Your task to perform on an android device: open app "Mercado Libre" (install if not already installed) and go to login screen Image 0: 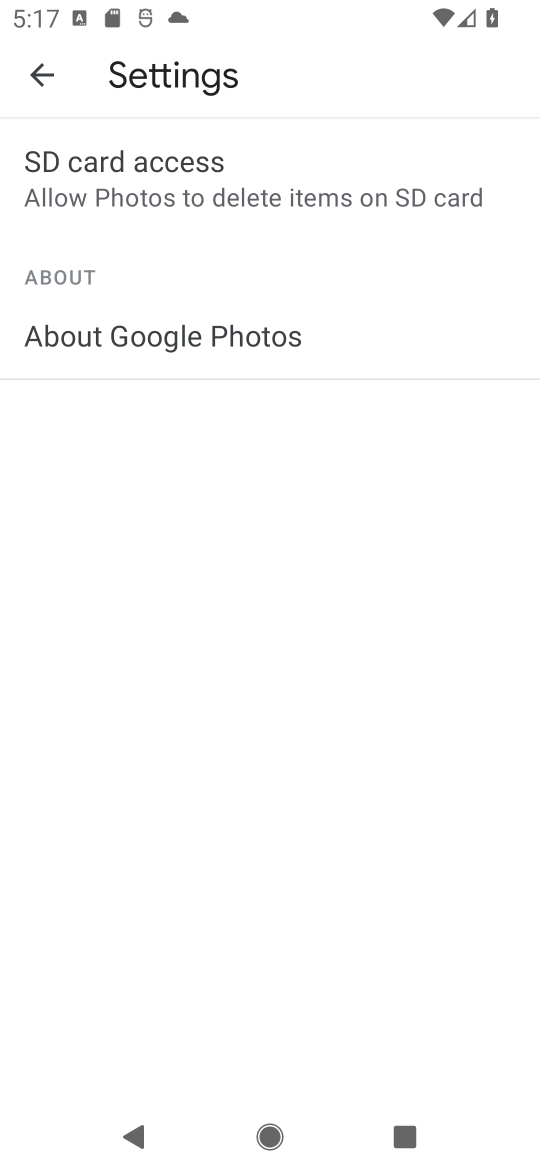
Step 0: press home button
Your task to perform on an android device: open app "Mercado Libre" (install if not already installed) and go to login screen Image 1: 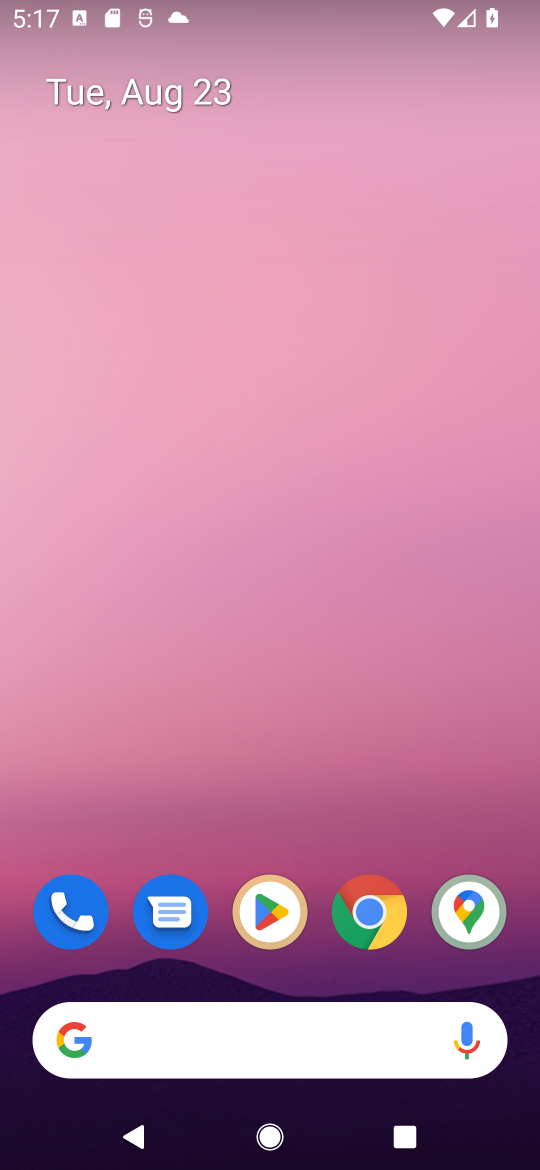
Step 1: drag from (248, 1055) to (311, 88)
Your task to perform on an android device: open app "Mercado Libre" (install if not already installed) and go to login screen Image 2: 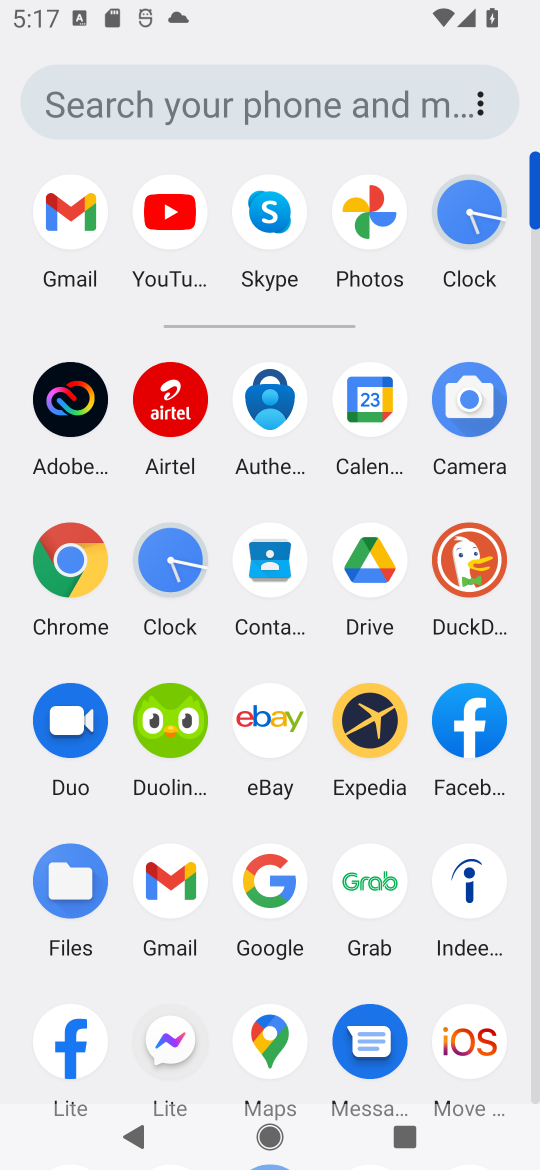
Step 2: drag from (199, 984) to (300, 286)
Your task to perform on an android device: open app "Mercado Libre" (install if not already installed) and go to login screen Image 3: 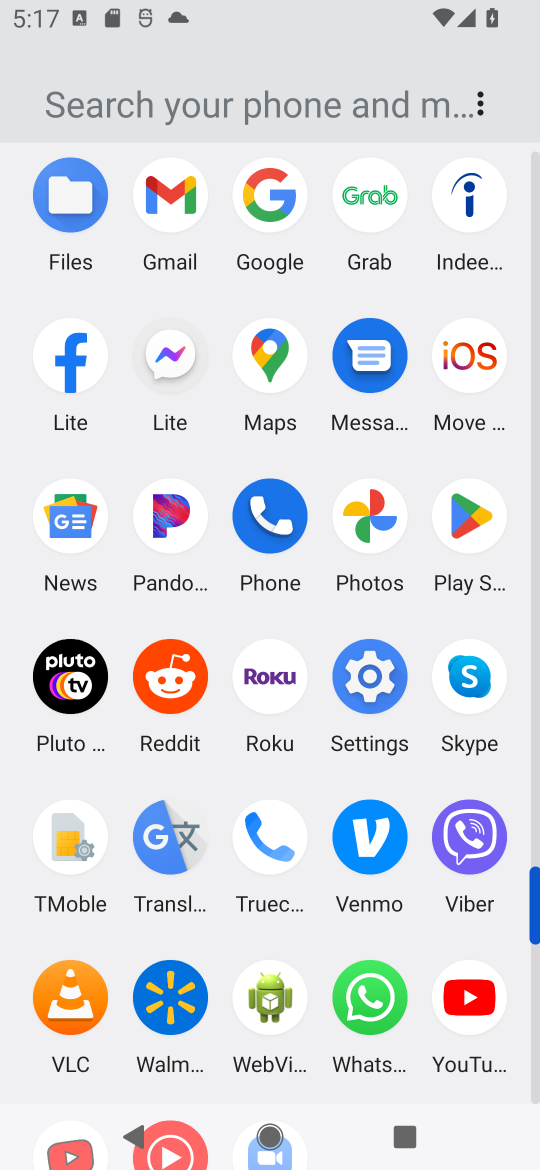
Step 3: click (464, 516)
Your task to perform on an android device: open app "Mercado Libre" (install if not already installed) and go to login screen Image 4: 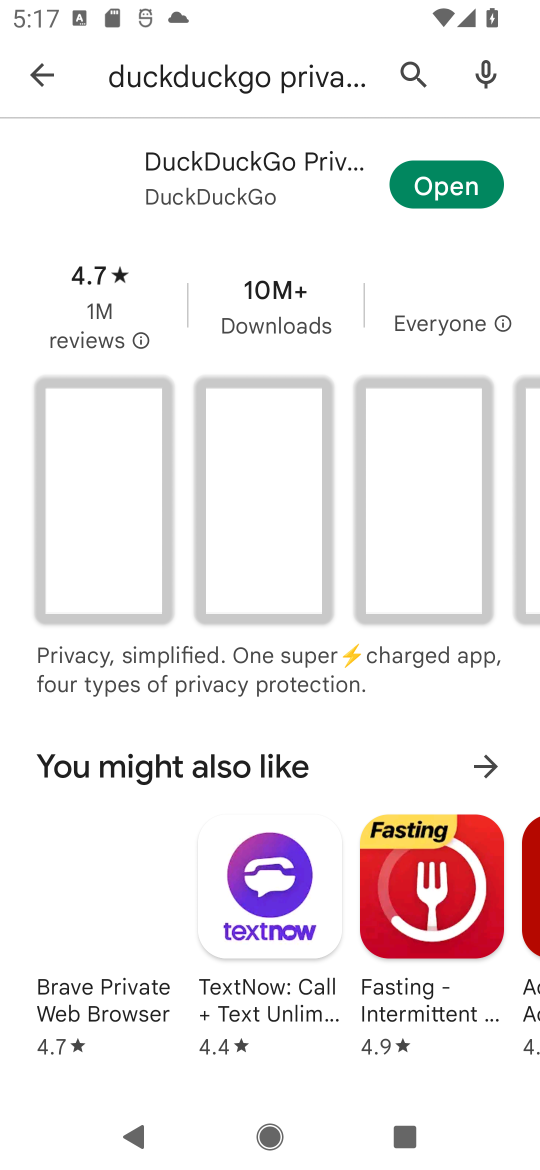
Step 4: press back button
Your task to perform on an android device: open app "Mercado Libre" (install if not already installed) and go to login screen Image 5: 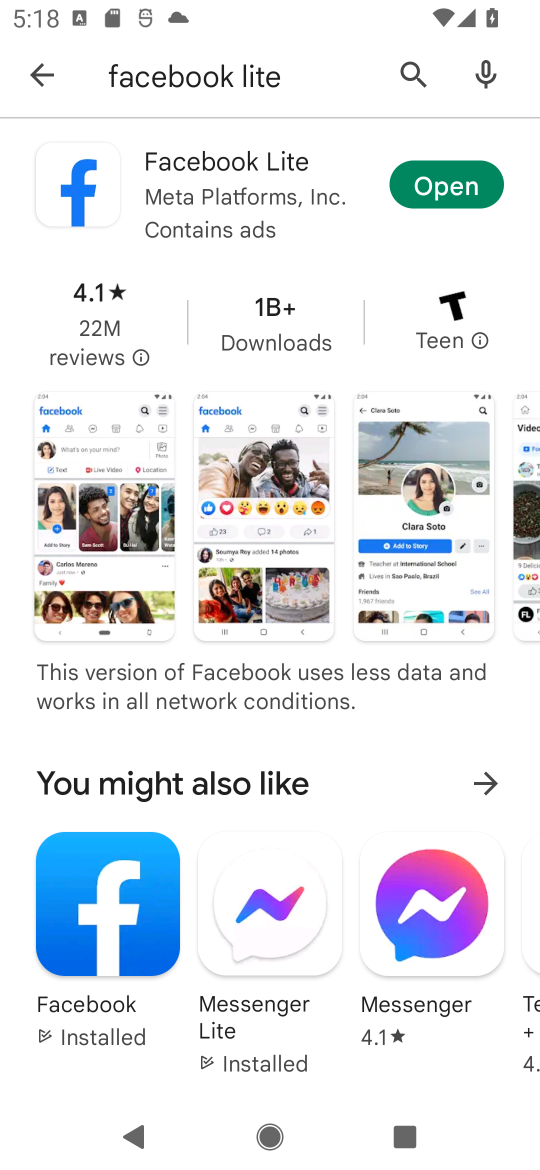
Step 5: press back button
Your task to perform on an android device: open app "Mercado Libre" (install if not already installed) and go to login screen Image 6: 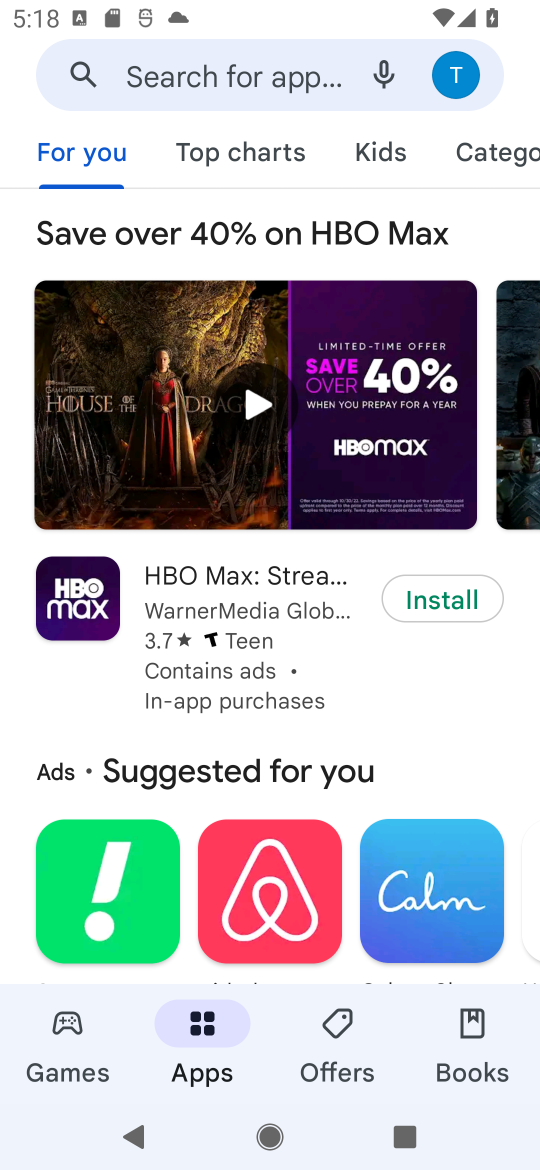
Step 6: click (277, 79)
Your task to perform on an android device: open app "Mercado Libre" (install if not already installed) and go to login screen Image 7: 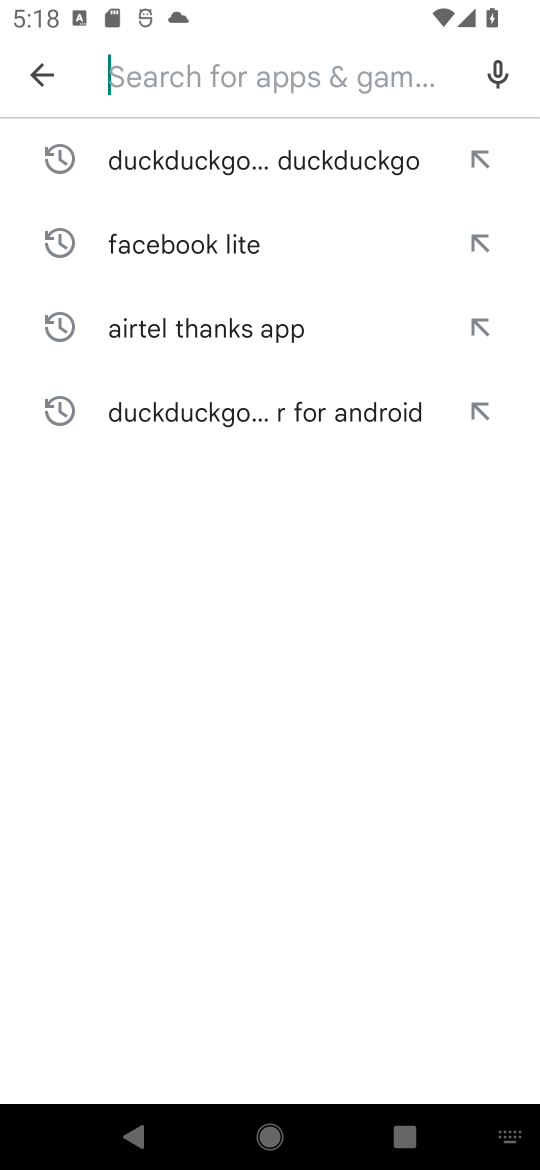
Step 7: type "Mercado Libre"
Your task to perform on an android device: open app "Mercado Libre" (install if not already installed) and go to login screen Image 8: 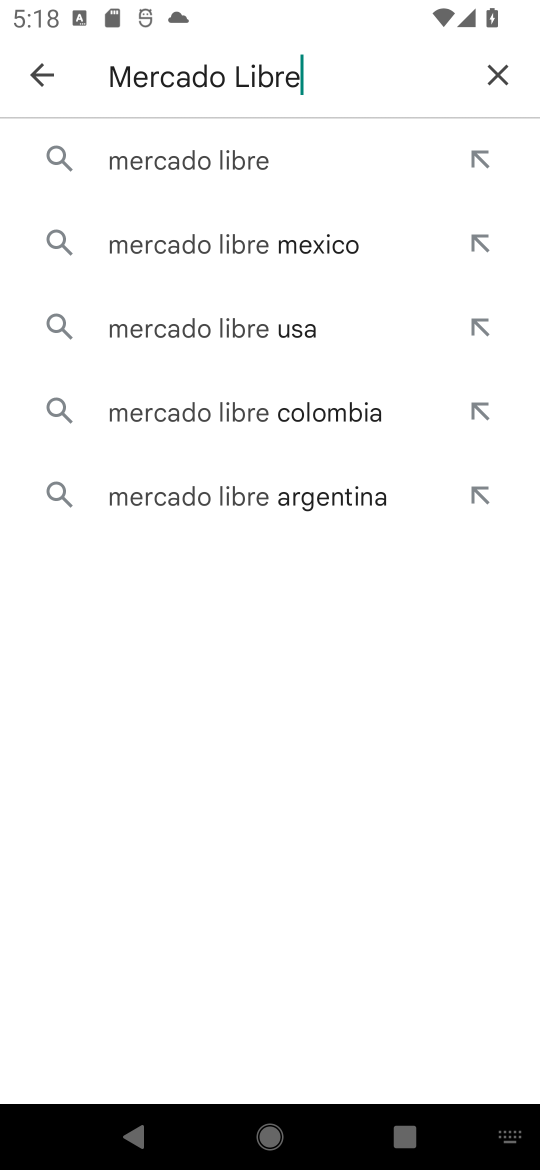
Step 8: click (256, 170)
Your task to perform on an android device: open app "Mercado Libre" (install if not already installed) and go to login screen Image 9: 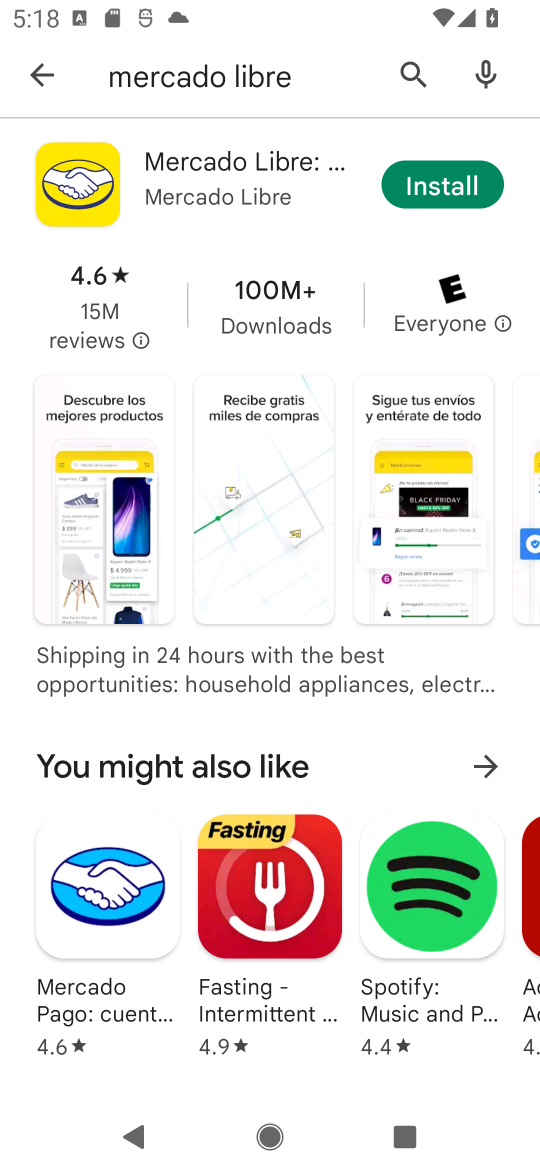
Step 9: click (235, 173)
Your task to perform on an android device: open app "Mercado Libre" (install if not already installed) and go to login screen Image 10: 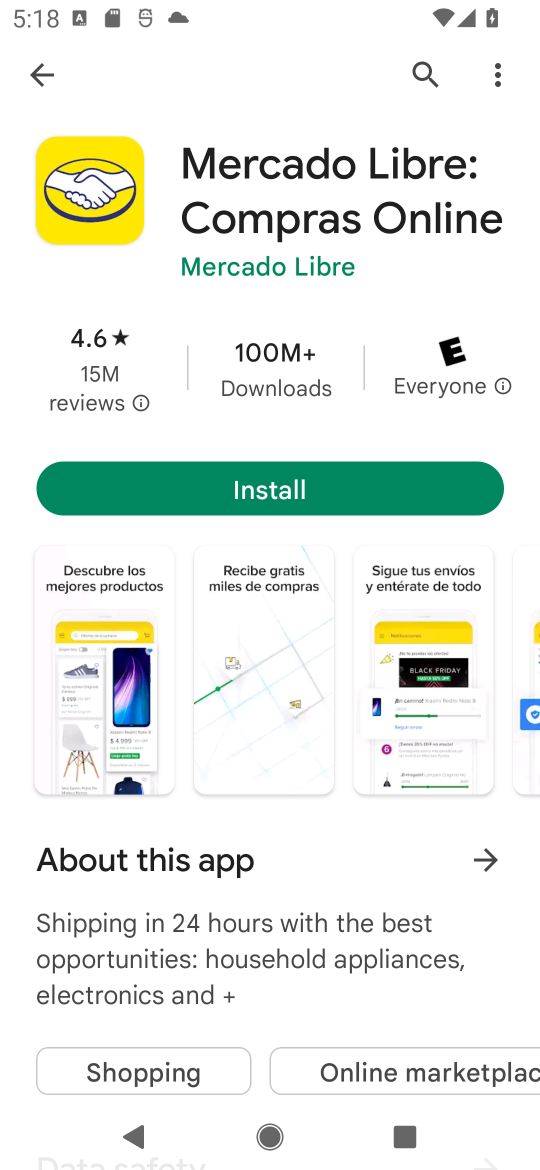
Step 10: click (264, 479)
Your task to perform on an android device: open app "Mercado Libre" (install if not already installed) and go to login screen Image 11: 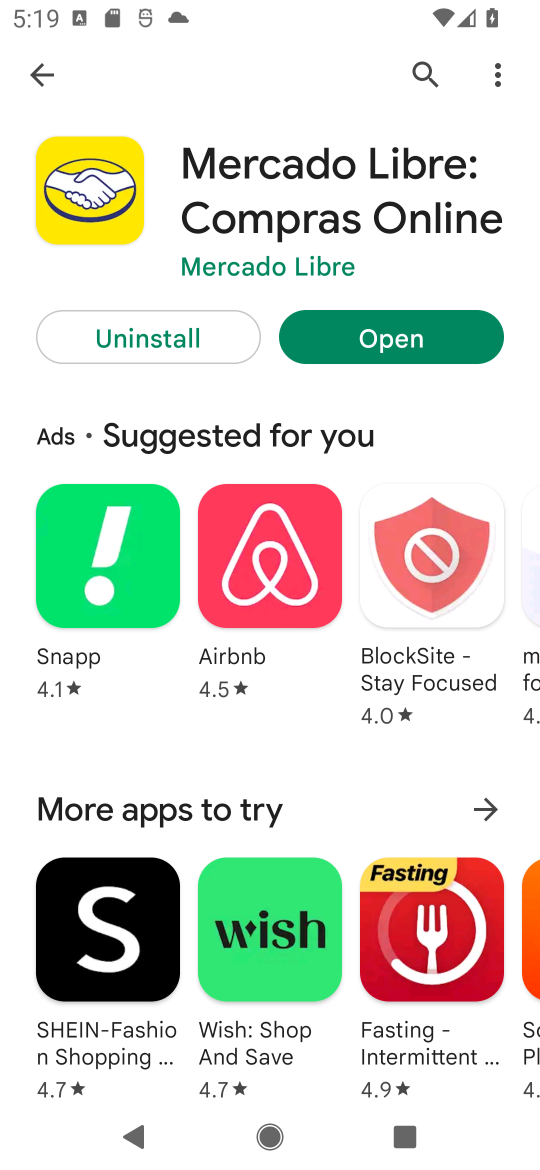
Step 11: click (398, 343)
Your task to perform on an android device: open app "Mercado Libre" (install if not already installed) and go to login screen Image 12: 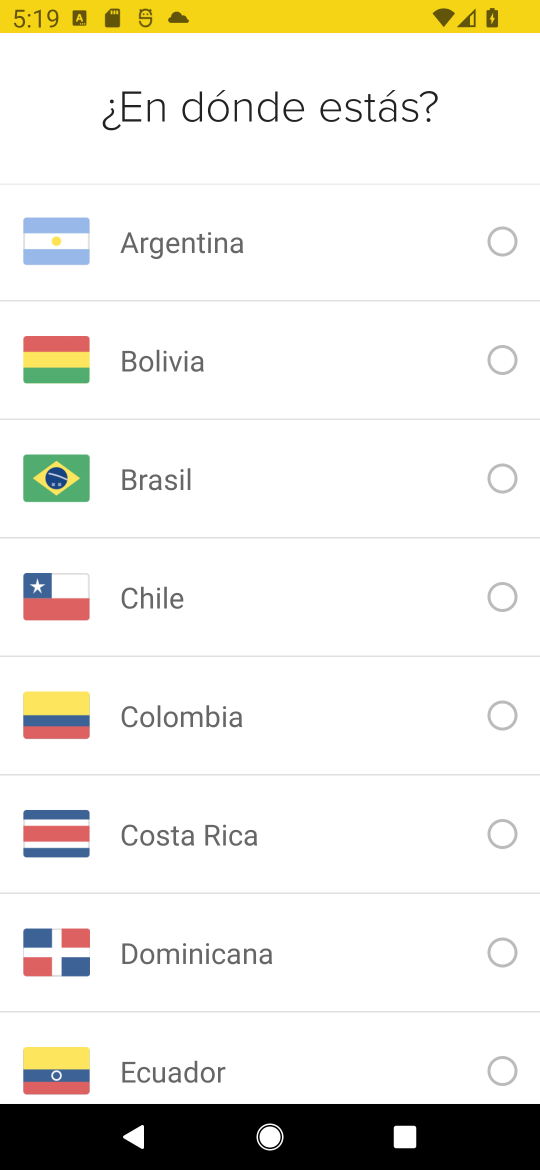
Step 12: task complete